Your task to perform on an android device: see creations saved in the google photos Image 0: 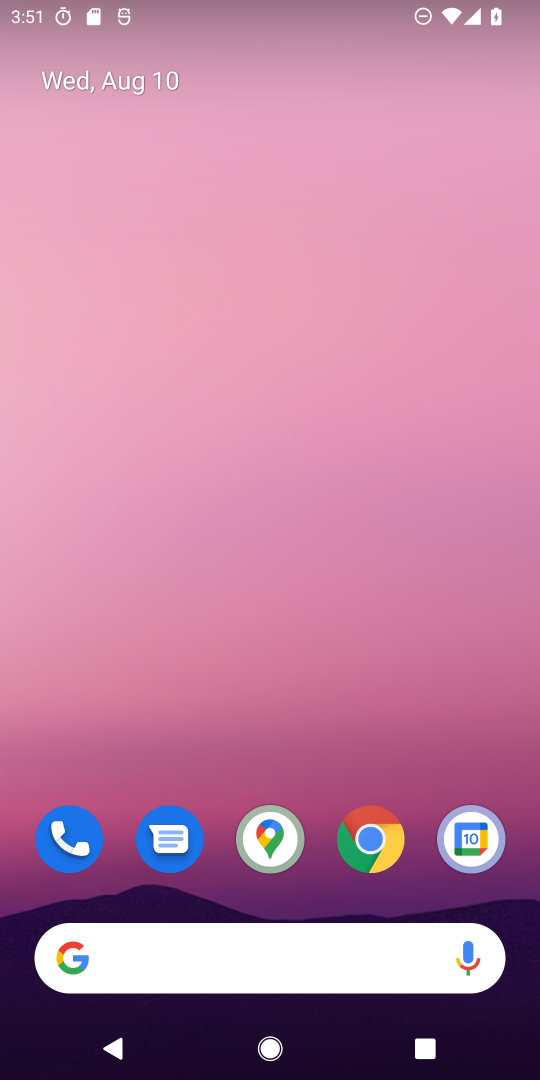
Step 0: drag from (38, 1028) to (277, 158)
Your task to perform on an android device: see creations saved in the google photos Image 1: 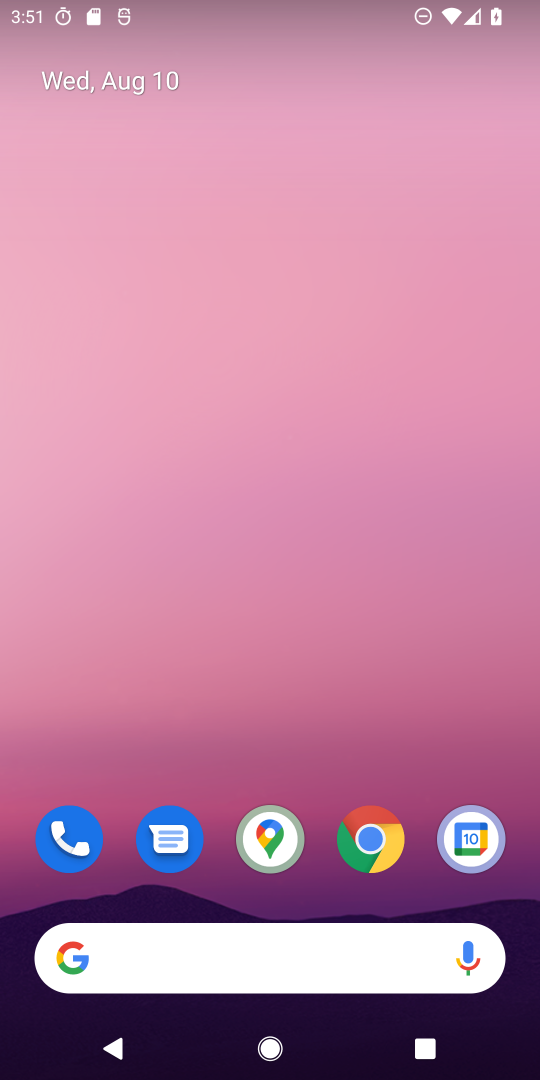
Step 1: drag from (49, 1041) to (231, 581)
Your task to perform on an android device: see creations saved in the google photos Image 2: 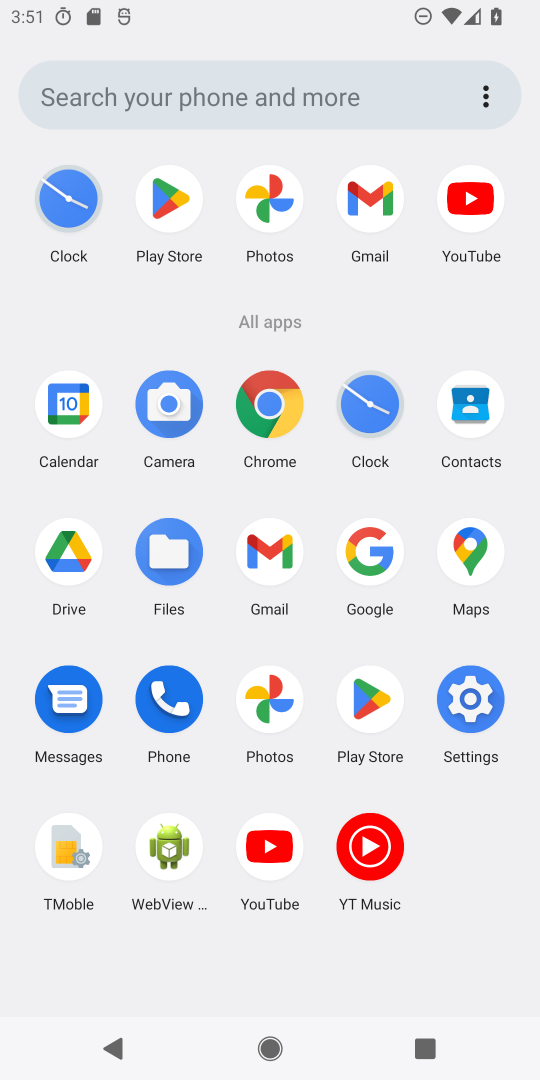
Step 2: click (272, 696)
Your task to perform on an android device: see creations saved in the google photos Image 3: 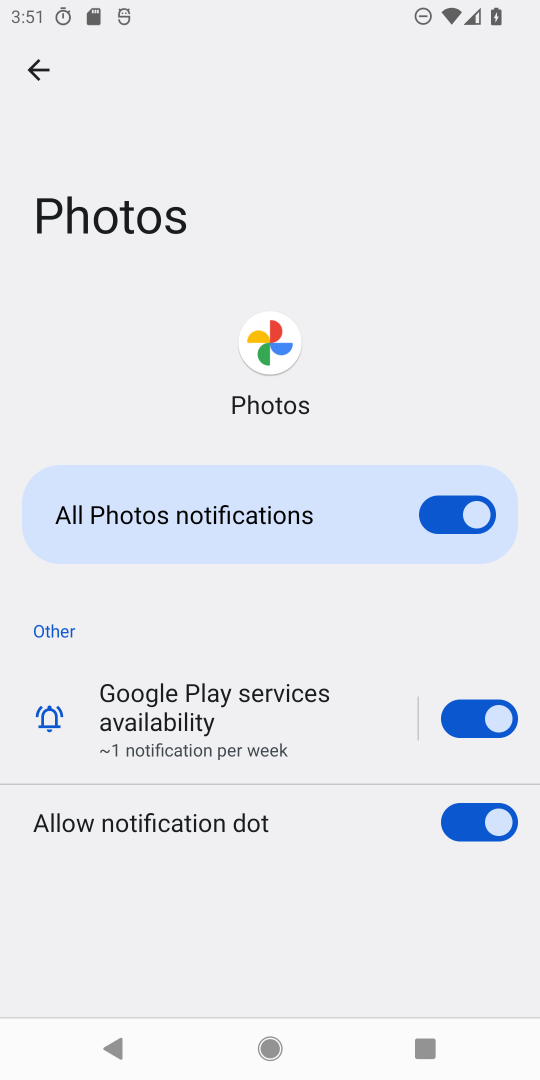
Step 3: click (44, 63)
Your task to perform on an android device: see creations saved in the google photos Image 4: 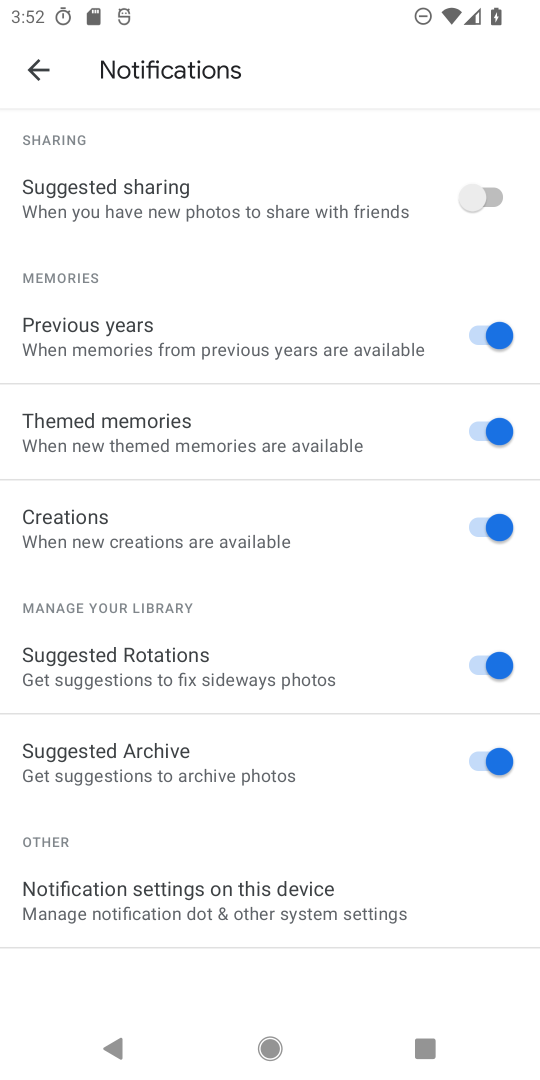
Step 4: click (38, 63)
Your task to perform on an android device: see creations saved in the google photos Image 5: 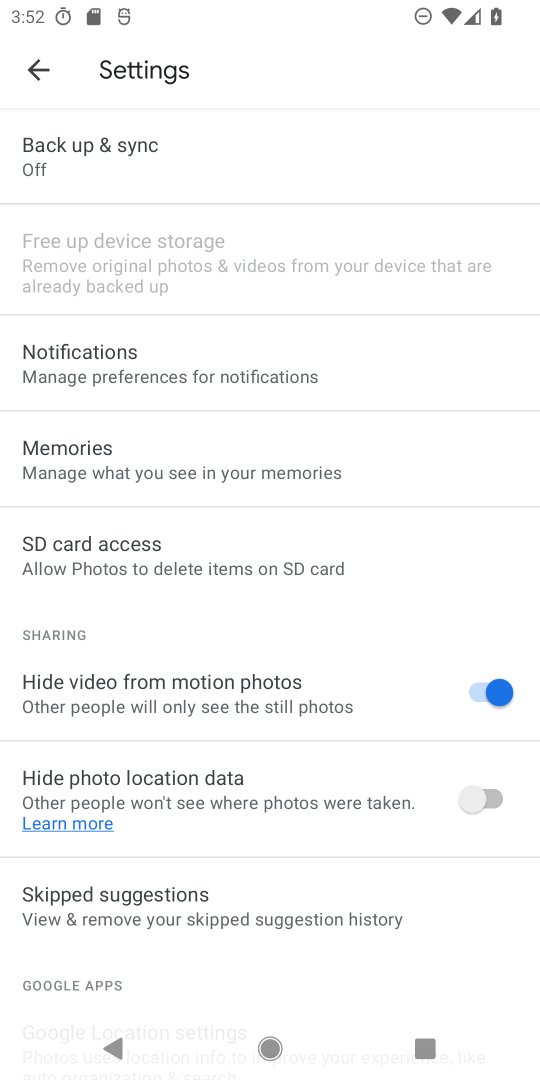
Step 5: click (38, 63)
Your task to perform on an android device: see creations saved in the google photos Image 6: 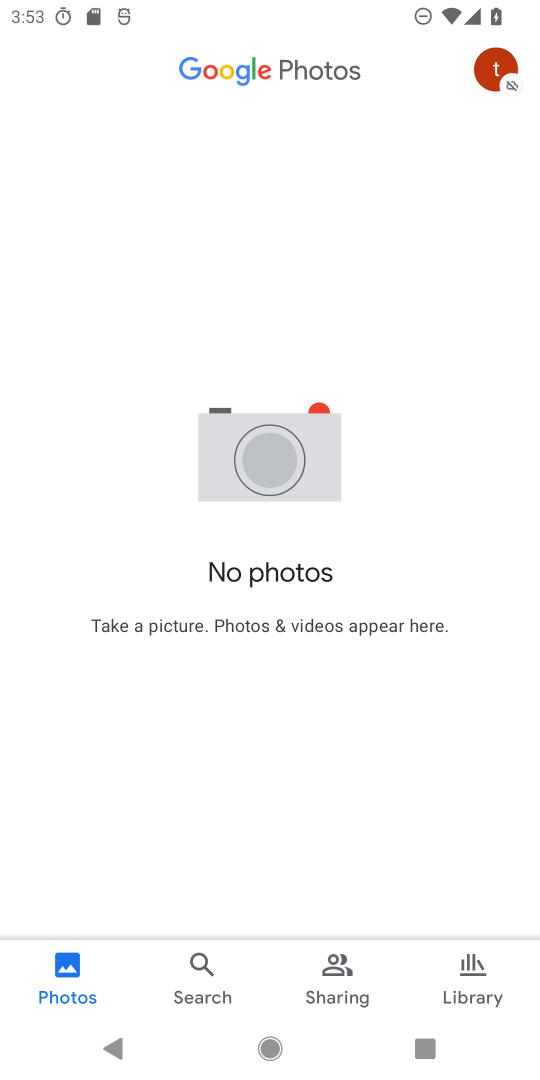
Step 6: task complete